Your task to perform on an android device: Open maps Image 0: 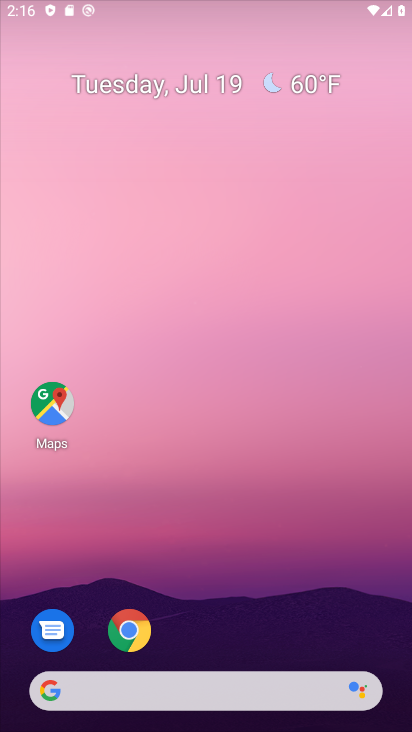
Step 0: drag from (260, 583) to (181, 175)
Your task to perform on an android device: Open maps Image 1: 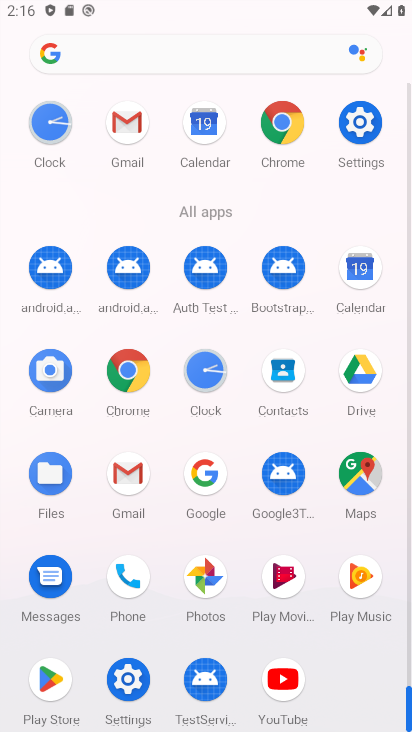
Step 1: click (355, 477)
Your task to perform on an android device: Open maps Image 2: 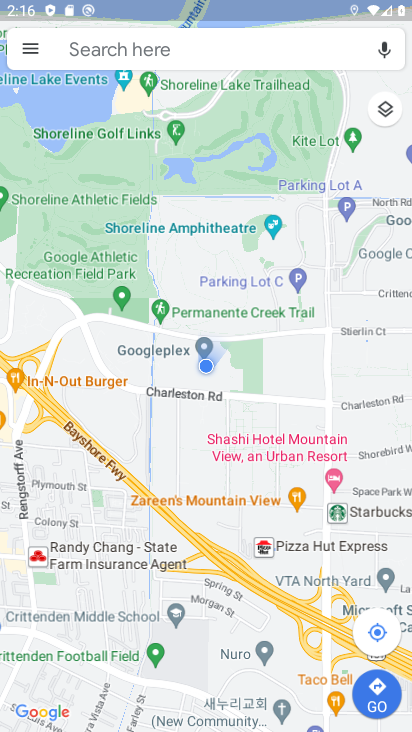
Step 2: click (46, 35)
Your task to perform on an android device: Open maps Image 3: 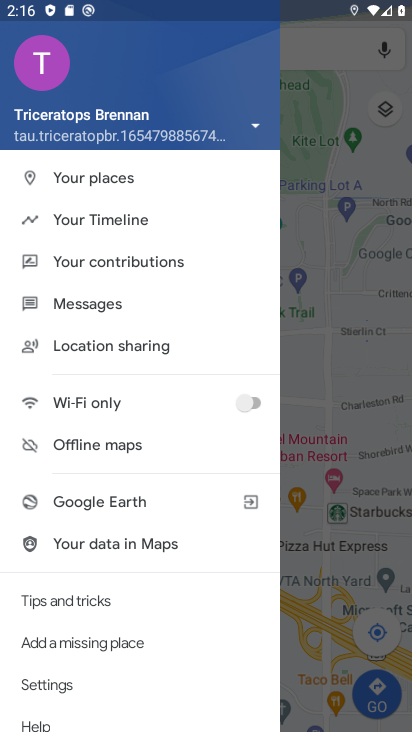
Step 3: click (88, 218)
Your task to perform on an android device: Open maps Image 4: 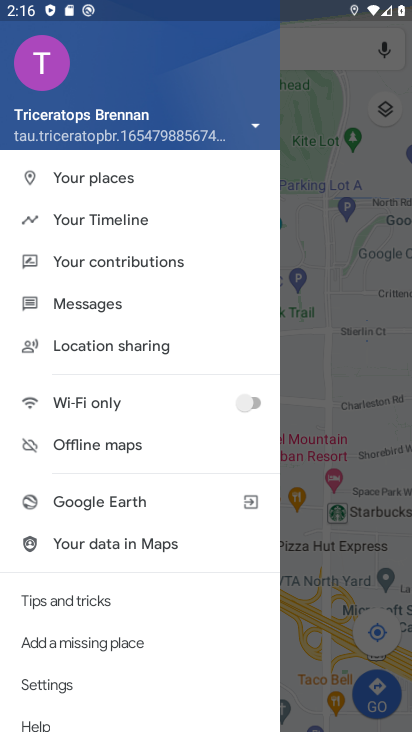
Step 4: click (89, 218)
Your task to perform on an android device: Open maps Image 5: 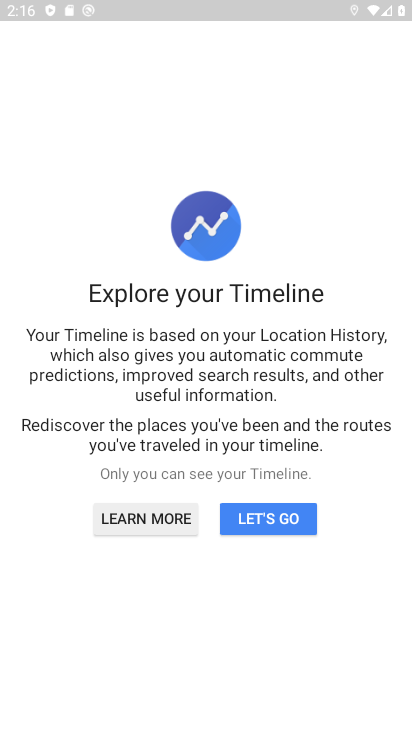
Step 5: click (281, 513)
Your task to perform on an android device: Open maps Image 6: 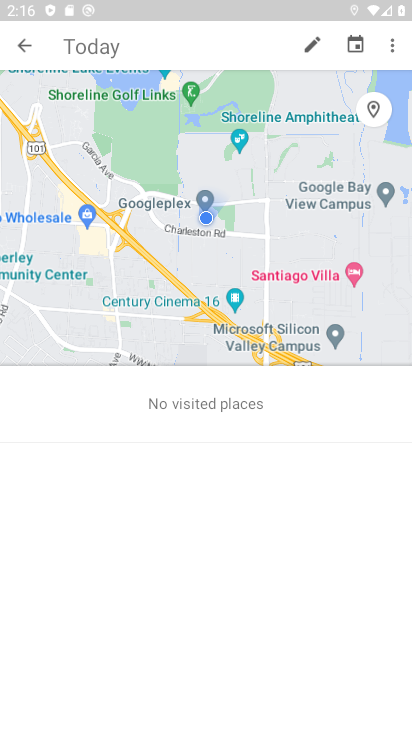
Step 6: task complete